Your task to perform on an android device: Check the news Image 0: 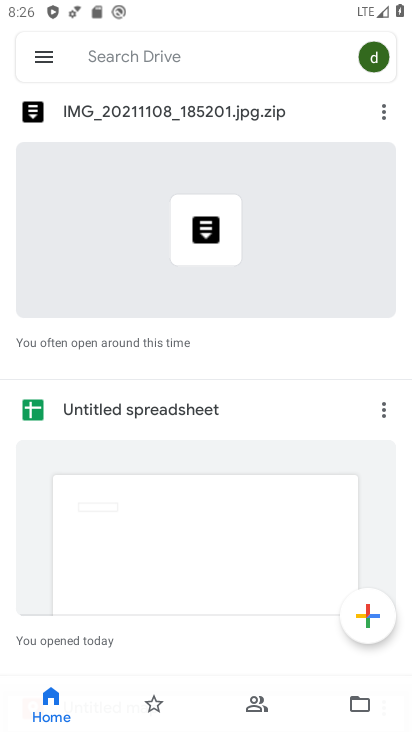
Step 0: press home button
Your task to perform on an android device: Check the news Image 1: 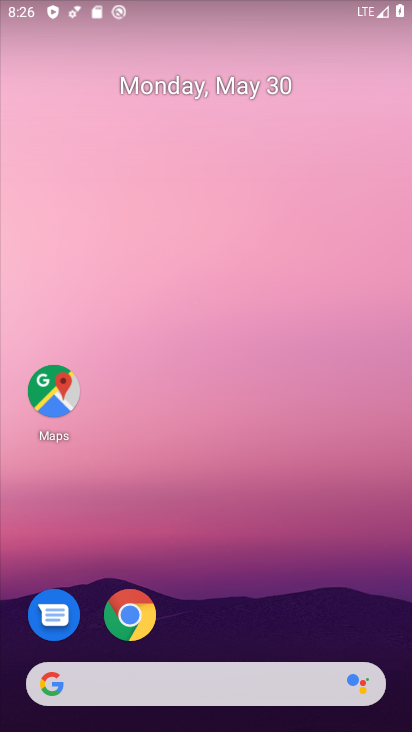
Step 1: click (249, 683)
Your task to perform on an android device: Check the news Image 2: 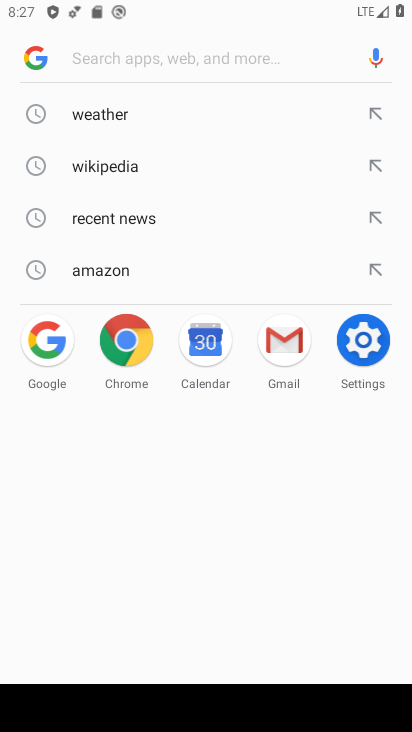
Step 2: type "news"
Your task to perform on an android device: Check the news Image 3: 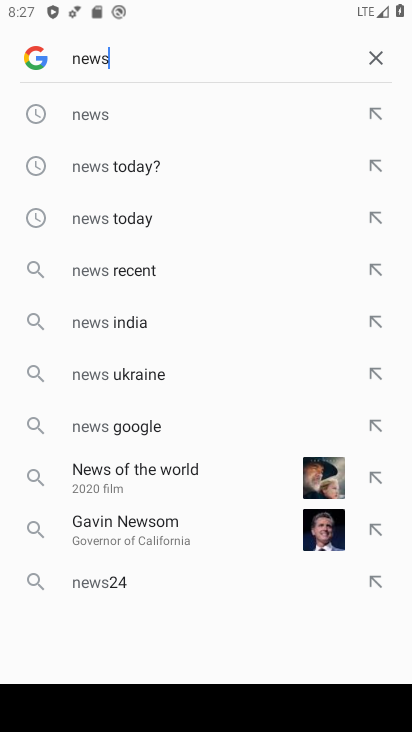
Step 3: click (191, 109)
Your task to perform on an android device: Check the news Image 4: 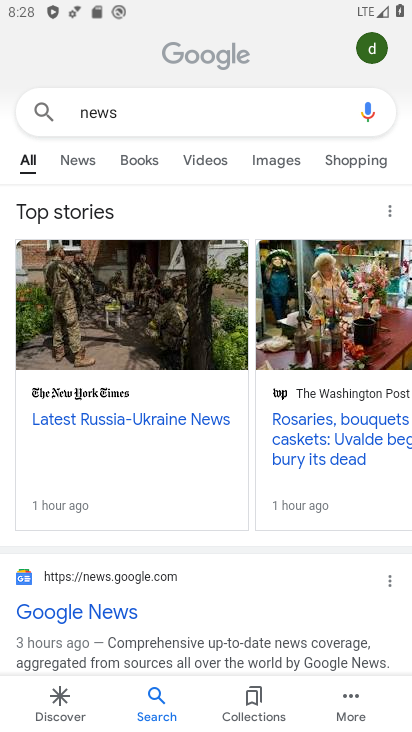
Step 4: task complete